Your task to perform on an android device: Go to sound settings Image 0: 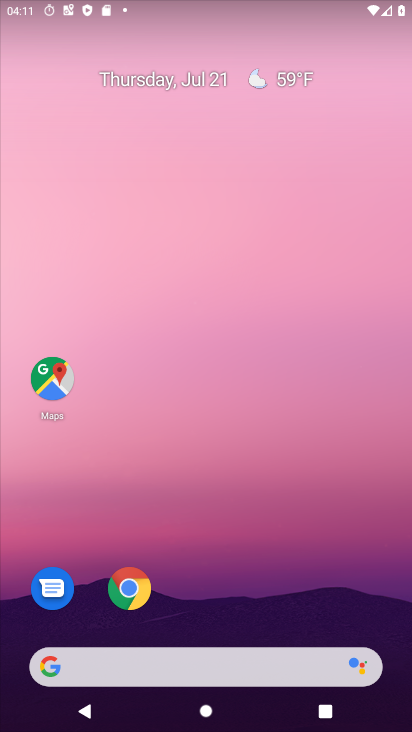
Step 0: drag from (202, 527) to (258, 103)
Your task to perform on an android device: Go to sound settings Image 1: 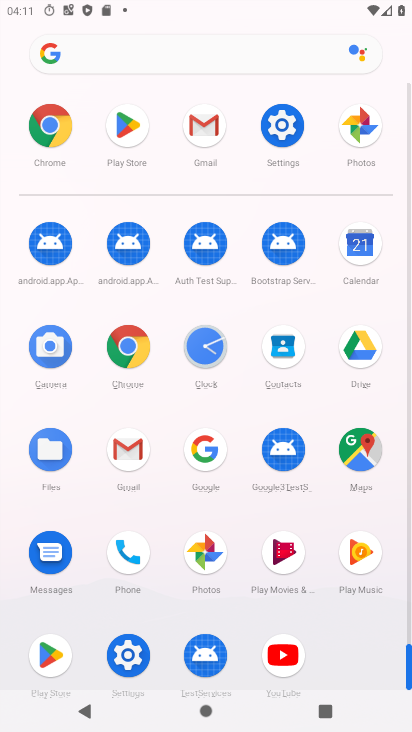
Step 1: click (127, 657)
Your task to perform on an android device: Go to sound settings Image 2: 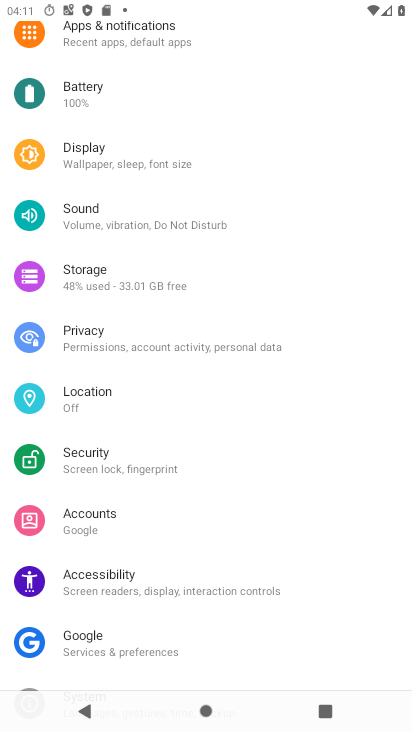
Step 2: click (133, 225)
Your task to perform on an android device: Go to sound settings Image 3: 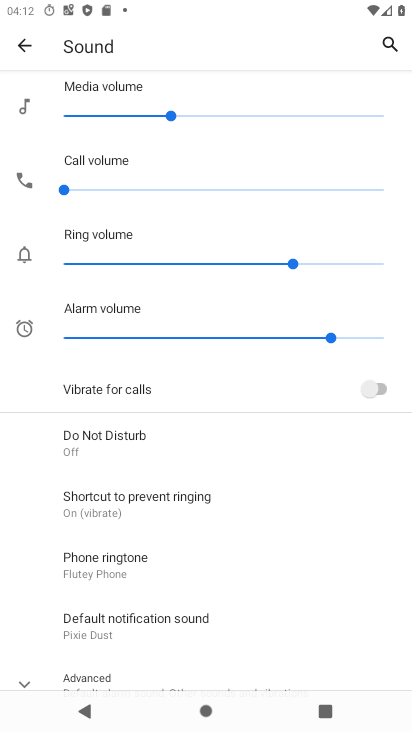
Step 3: task complete